Your task to perform on an android device: turn smart compose on in the gmail app Image 0: 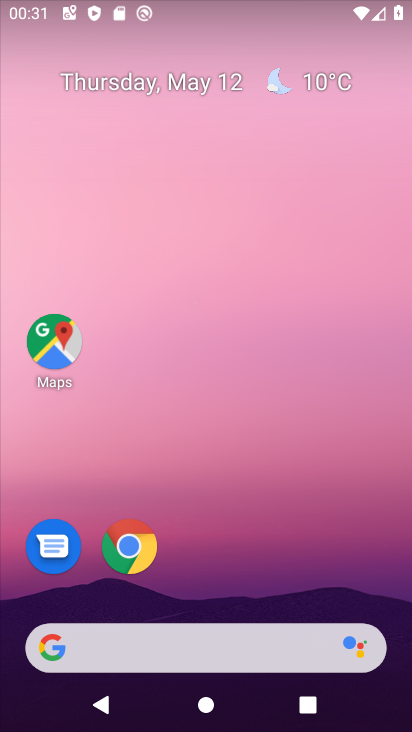
Step 0: drag from (178, 610) to (146, 178)
Your task to perform on an android device: turn smart compose on in the gmail app Image 1: 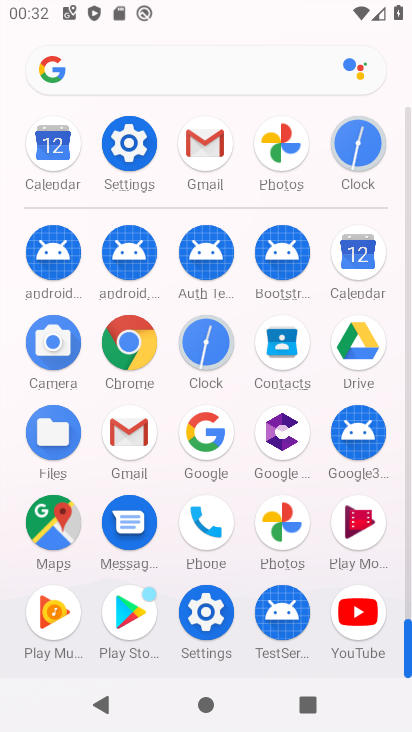
Step 1: click (124, 445)
Your task to perform on an android device: turn smart compose on in the gmail app Image 2: 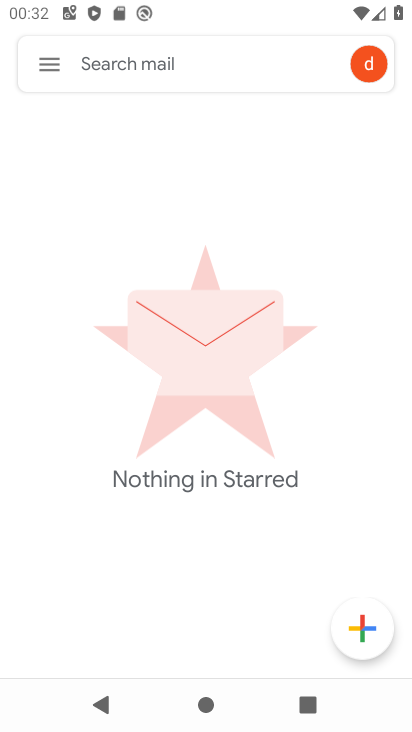
Step 2: click (43, 57)
Your task to perform on an android device: turn smart compose on in the gmail app Image 3: 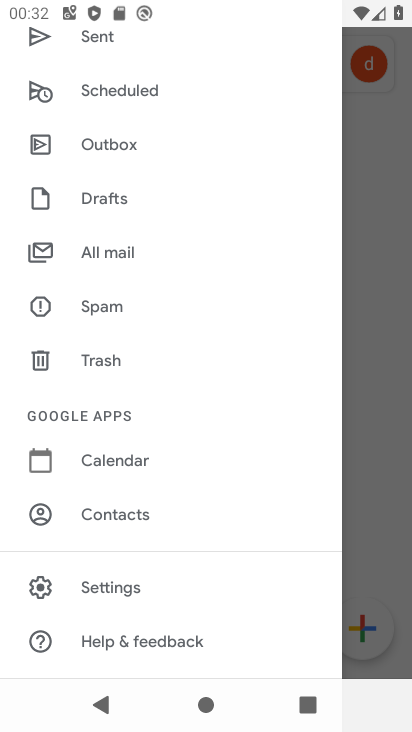
Step 3: click (136, 578)
Your task to perform on an android device: turn smart compose on in the gmail app Image 4: 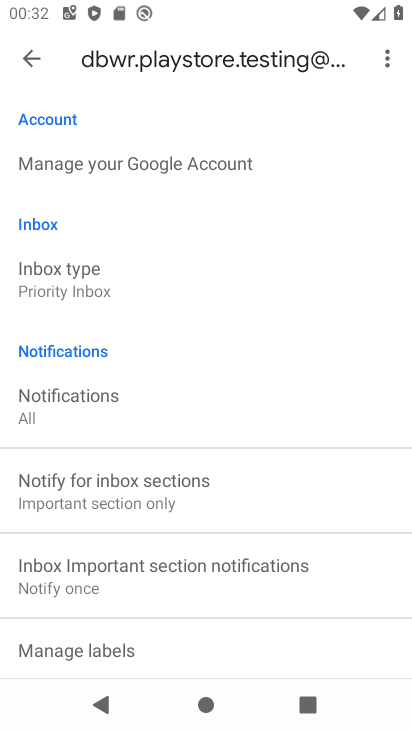
Step 4: task complete